Your task to perform on an android device: Open notification settings Image 0: 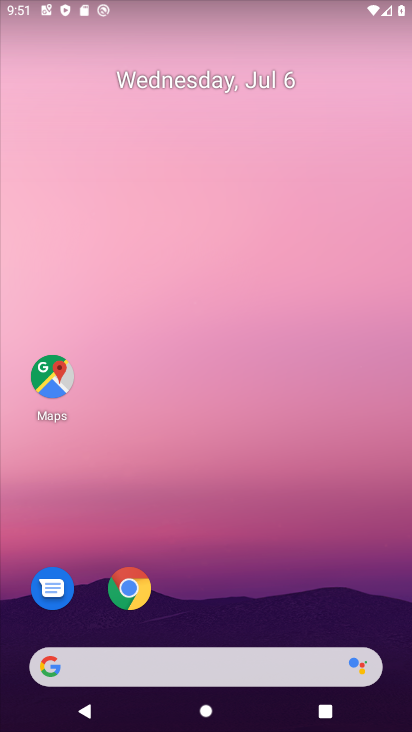
Step 0: drag from (247, 607) to (312, 19)
Your task to perform on an android device: Open notification settings Image 1: 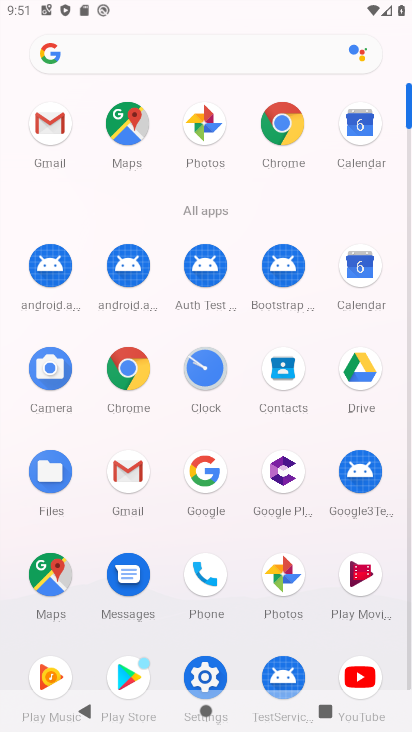
Step 1: click (208, 662)
Your task to perform on an android device: Open notification settings Image 2: 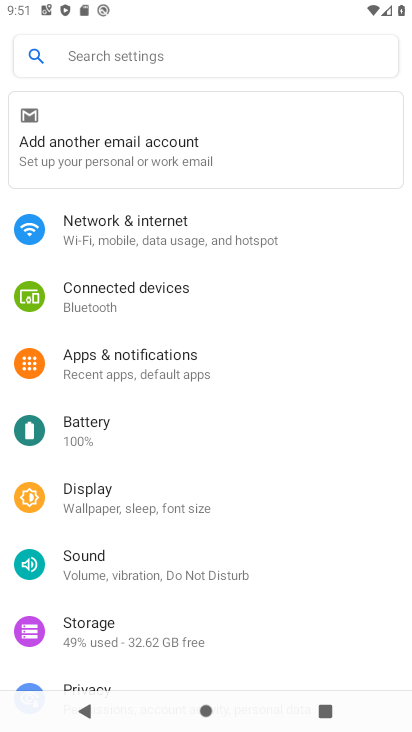
Step 2: click (151, 358)
Your task to perform on an android device: Open notification settings Image 3: 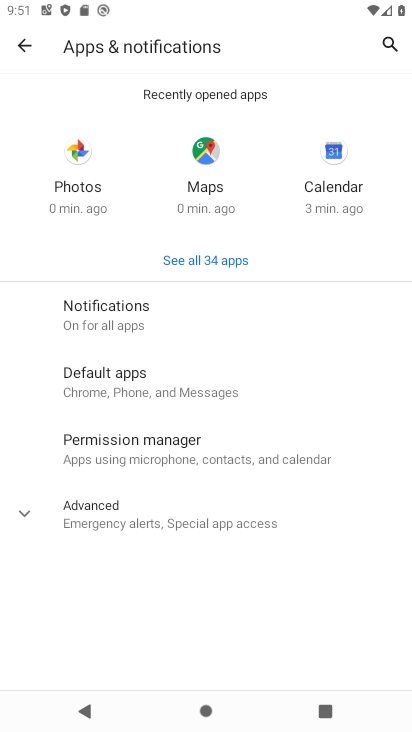
Step 3: task complete